Your task to perform on an android device: change notification settings in the gmail app Image 0: 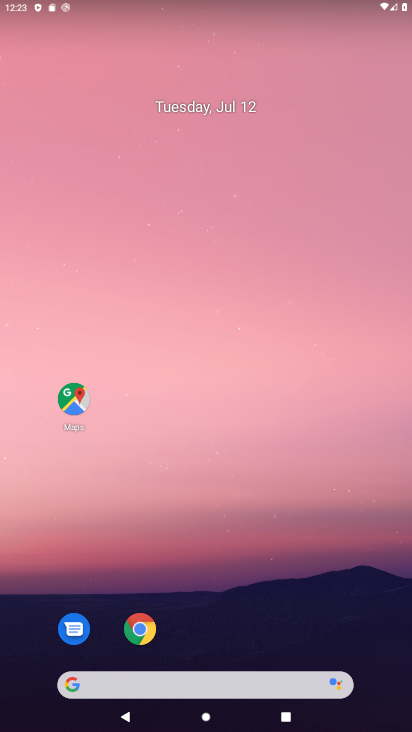
Step 0: drag from (258, 667) to (312, 1)
Your task to perform on an android device: change notification settings in the gmail app Image 1: 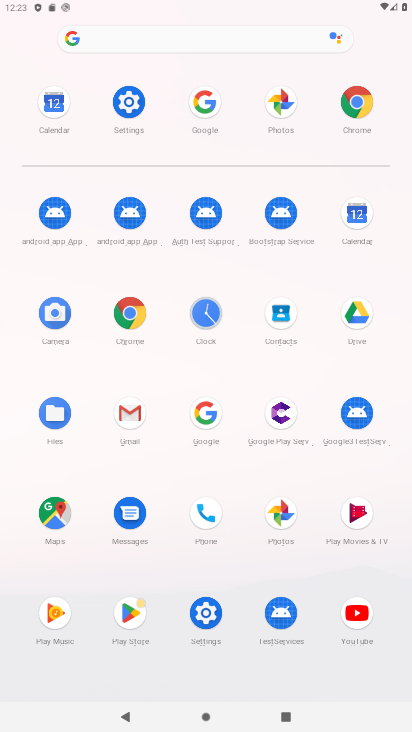
Step 1: click (138, 411)
Your task to perform on an android device: change notification settings in the gmail app Image 2: 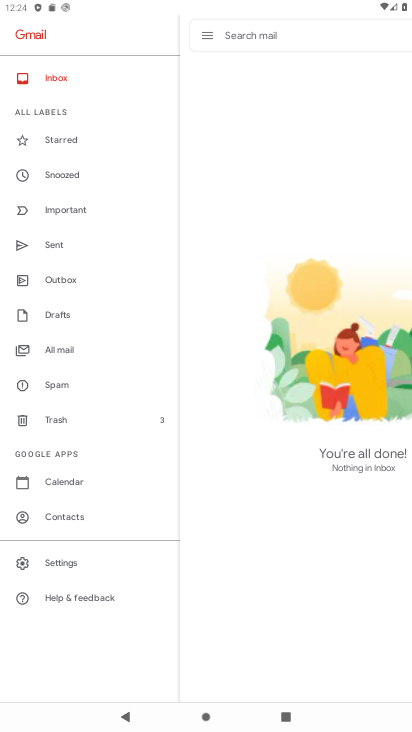
Step 2: click (81, 567)
Your task to perform on an android device: change notification settings in the gmail app Image 3: 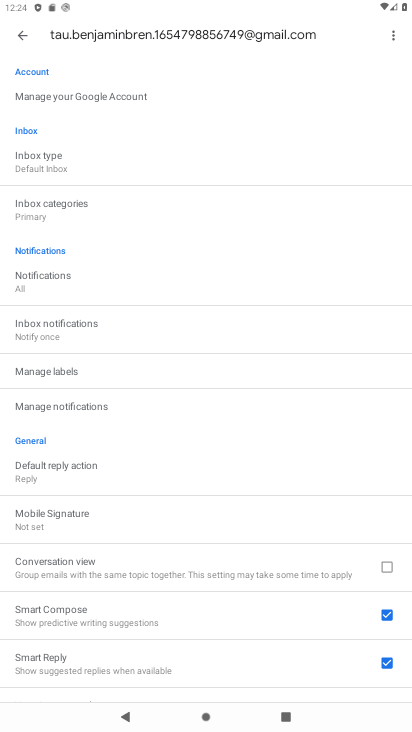
Step 3: click (69, 408)
Your task to perform on an android device: change notification settings in the gmail app Image 4: 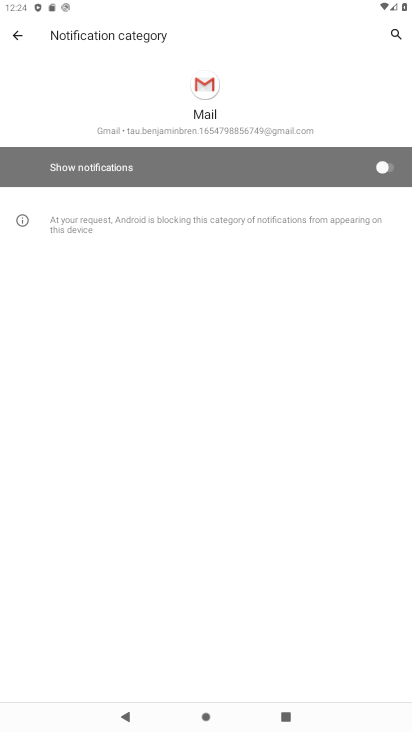
Step 4: click (384, 164)
Your task to perform on an android device: change notification settings in the gmail app Image 5: 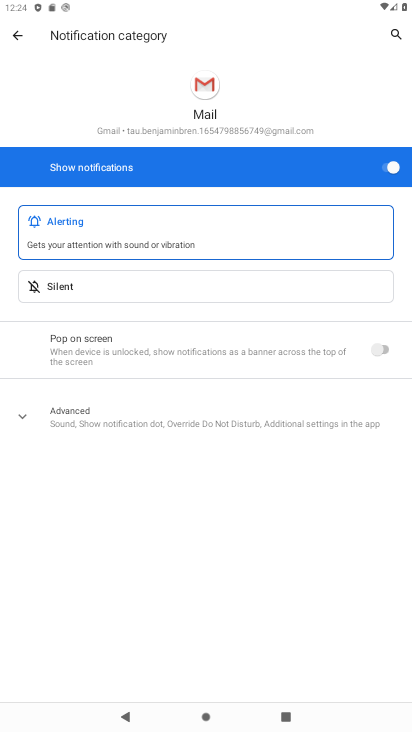
Step 5: task complete